Your task to perform on an android device: add a contact in the contacts app Image 0: 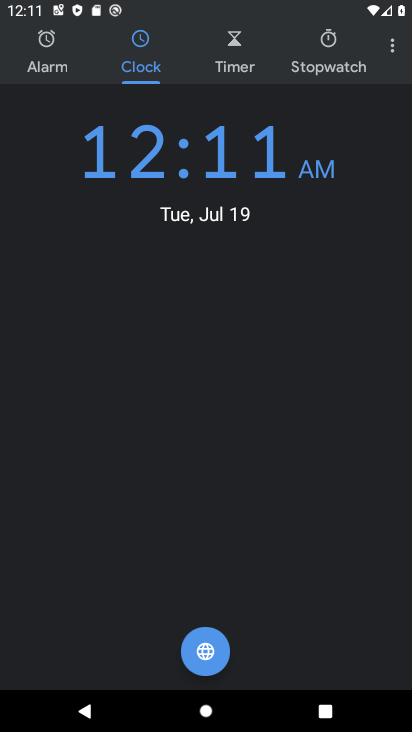
Step 0: press home button
Your task to perform on an android device: add a contact in the contacts app Image 1: 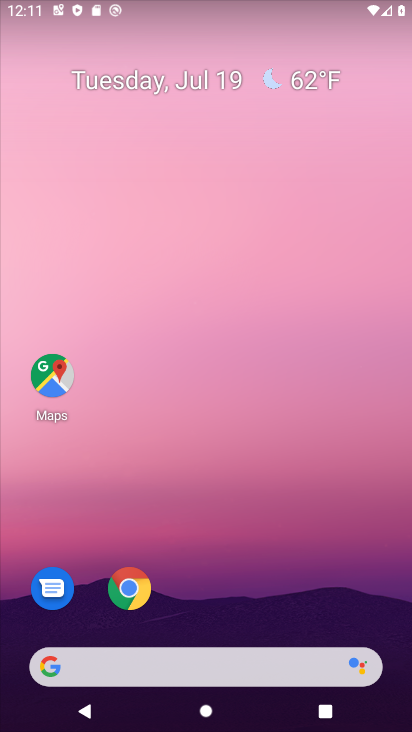
Step 1: drag from (273, 585) to (308, 7)
Your task to perform on an android device: add a contact in the contacts app Image 2: 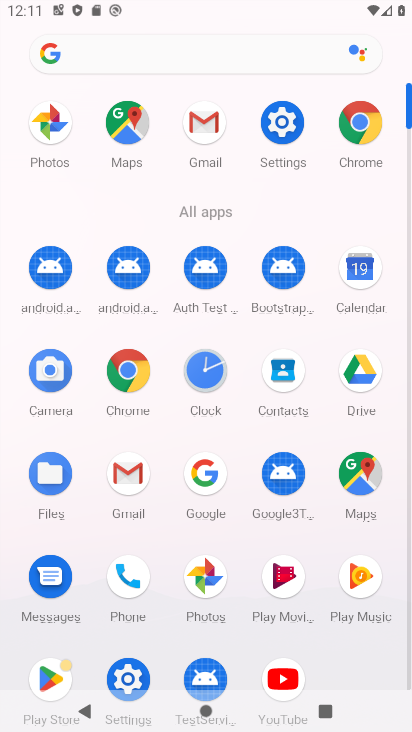
Step 2: click (285, 377)
Your task to perform on an android device: add a contact in the contacts app Image 3: 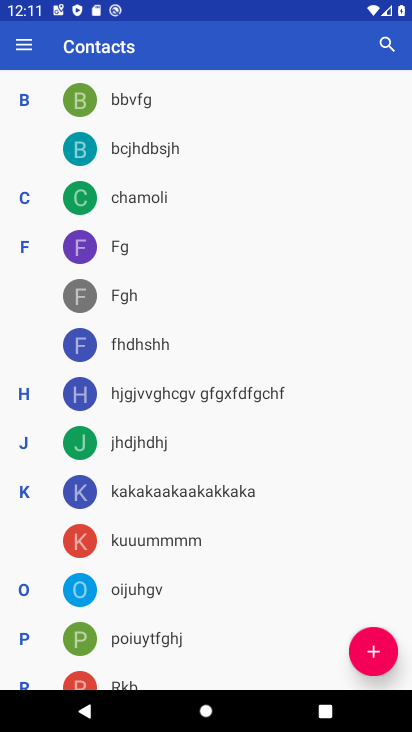
Step 3: click (371, 643)
Your task to perform on an android device: add a contact in the contacts app Image 4: 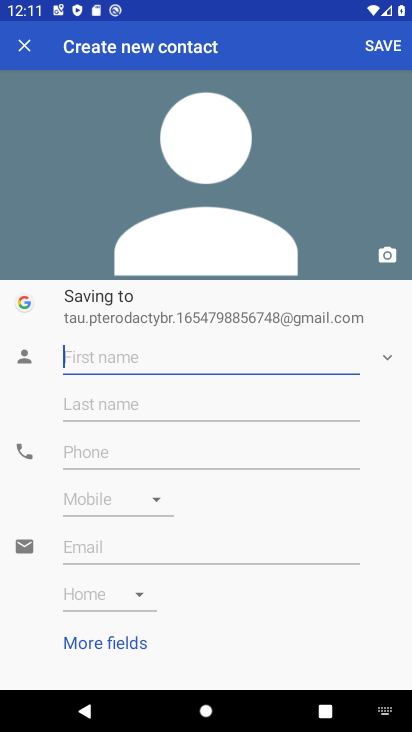
Step 4: type "hnjmk"
Your task to perform on an android device: add a contact in the contacts app Image 5: 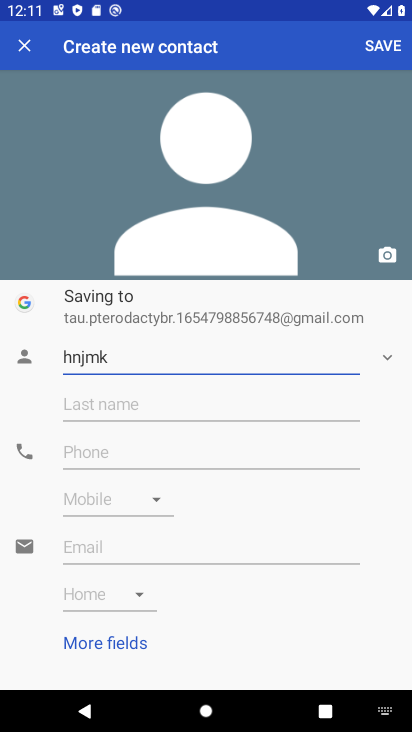
Step 5: click (76, 451)
Your task to perform on an android device: add a contact in the contacts app Image 6: 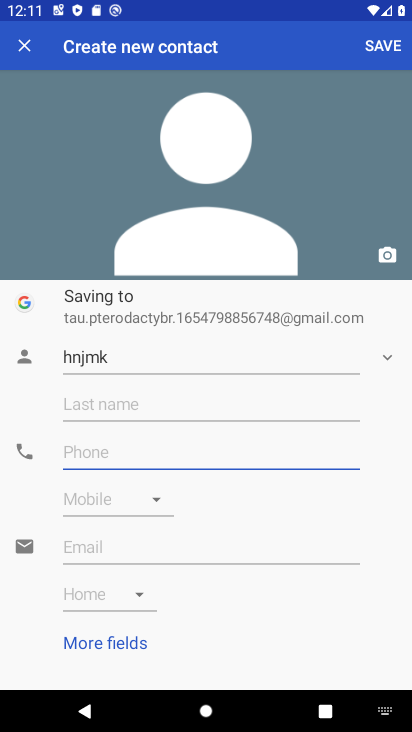
Step 6: type "2134567890"
Your task to perform on an android device: add a contact in the contacts app Image 7: 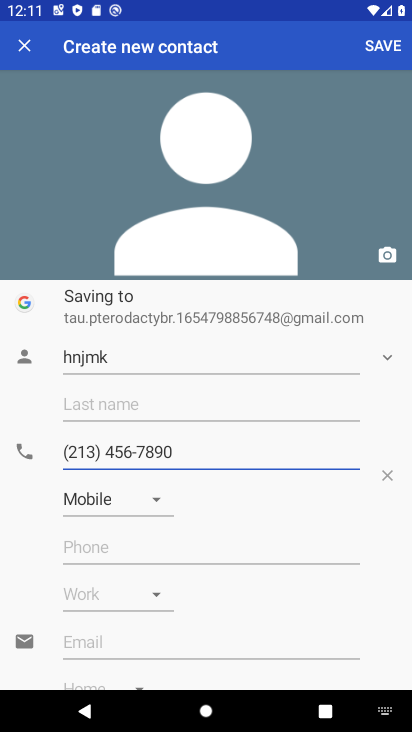
Step 7: click (385, 45)
Your task to perform on an android device: add a contact in the contacts app Image 8: 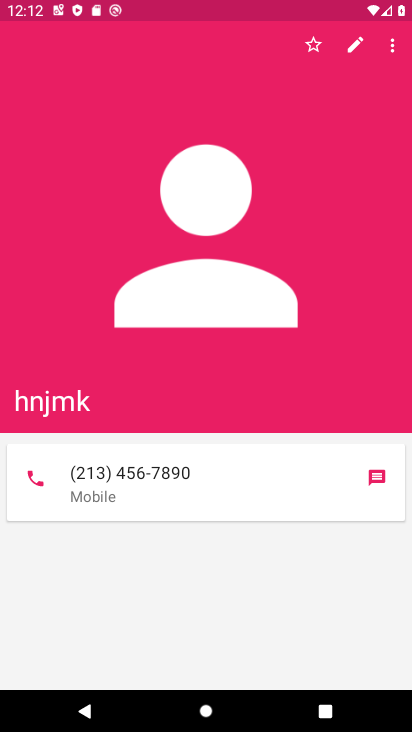
Step 8: task complete